Your task to perform on an android device: Clear all items from cart on walmart. Add "logitech g pro" to the cart on walmart Image 0: 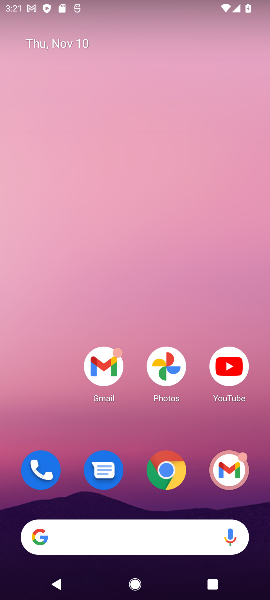
Step 0: click (174, 474)
Your task to perform on an android device: Clear all items from cart on walmart. Add "logitech g pro" to the cart on walmart Image 1: 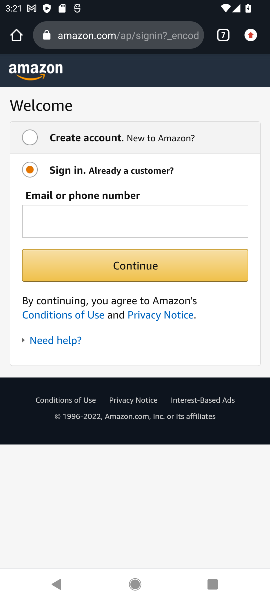
Step 1: click (224, 34)
Your task to perform on an android device: Clear all items from cart on walmart. Add "logitech g pro" to the cart on walmart Image 2: 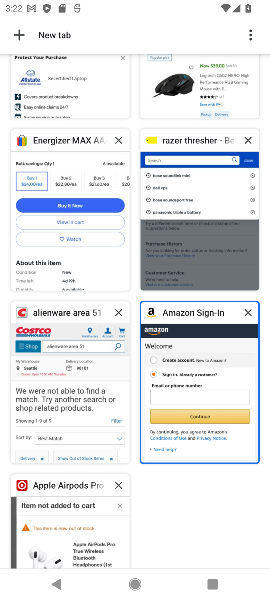
Step 2: click (196, 101)
Your task to perform on an android device: Clear all items from cart on walmart. Add "logitech g pro" to the cart on walmart Image 3: 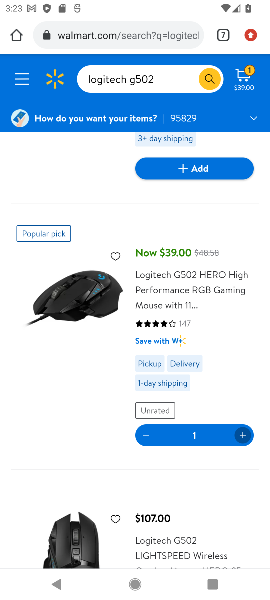
Step 3: click (250, 83)
Your task to perform on an android device: Clear all items from cart on walmart. Add "logitech g pro" to the cart on walmart Image 4: 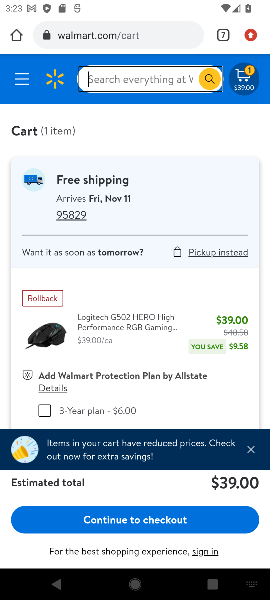
Step 4: drag from (13, 386) to (60, 212)
Your task to perform on an android device: Clear all items from cart on walmart. Add "logitech g pro" to the cart on walmart Image 5: 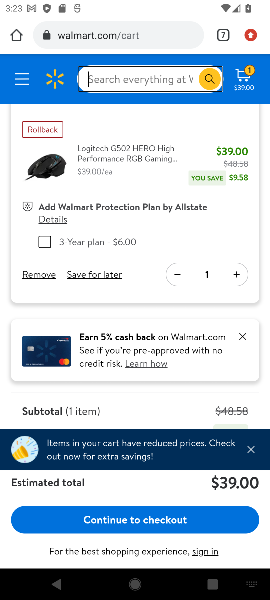
Step 5: click (42, 274)
Your task to perform on an android device: Clear all items from cart on walmart. Add "logitech g pro" to the cart on walmart Image 6: 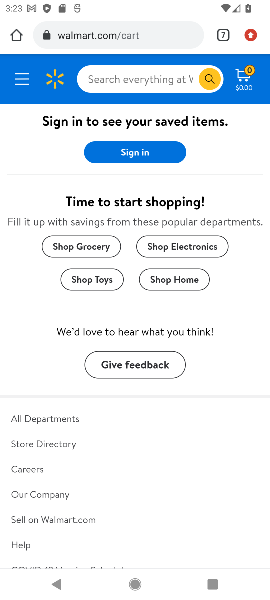
Step 6: click (115, 79)
Your task to perform on an android device: Clear all items from cart on walmart. Add "logitech g pro" to the cart on walmart Image 7: 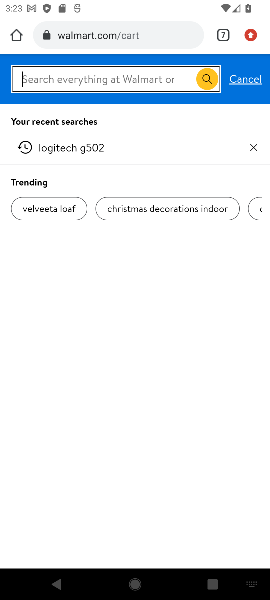
Step 7: type "logitech g pro"
Your task to perform on an android device: Clear all items from cart on walmart. Add "logitech g pro" to the cart on walmart Image 8: 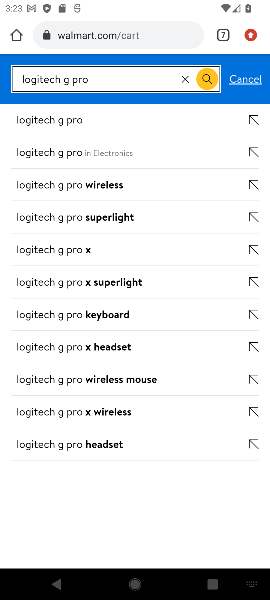
Step 8: click (29, 156)
Your task to perform on an android device: Clear all items from cart on walmart. Add "logitech g pro" to the cart on walmart Image 9: 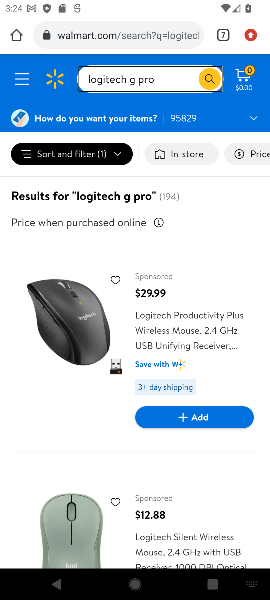
Step 9: drag from (155, 480) to (167, 275)
Your task to perform on an android device: Clear all items from cart on walmart. Add "logitech g pro" to the cart on walmart Image 10: 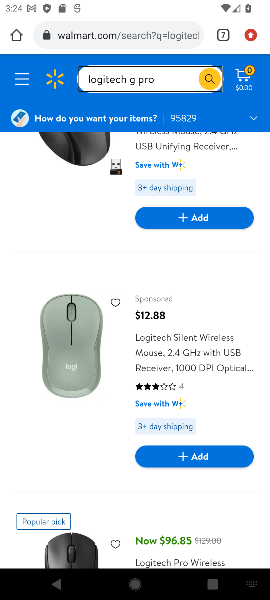
Step 10: drag from (199, 403) to (192, 139)
Your task to perform on an android device: Clear all items from cart on walmart. Add "logitech g pro" to the cart on walmart Image 11: 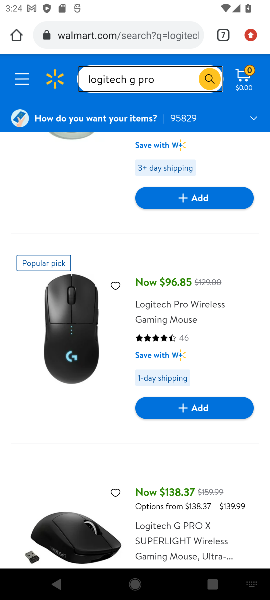
Step 11: click (190, 410)
Your task to perform on an android device: Clear all items from cart on walmart. Add "logitech g pro" to the cart on walmart Image 12: 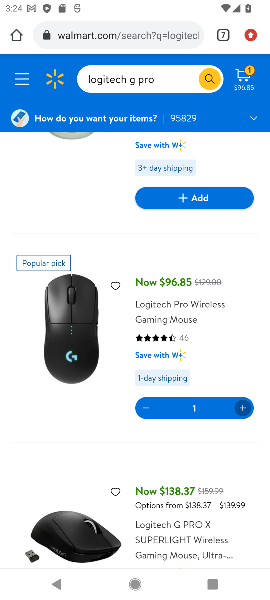
Step 12: task complete